Your task to perform on an android device: Open the map Image 0: 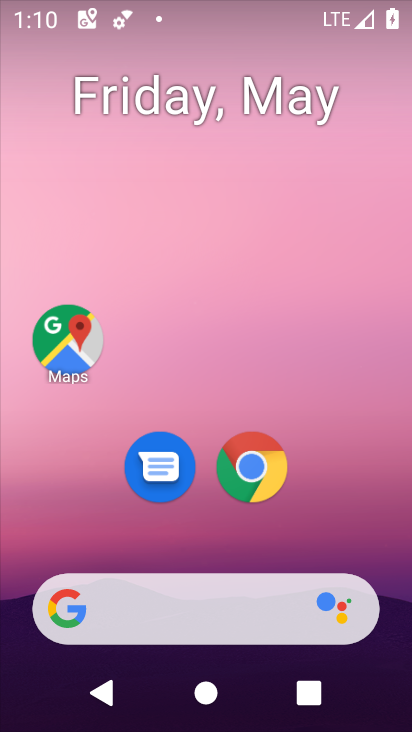
Step 0: drag from (324, 494) to (360, 64)
Your task to perform on an android device: Open the map Image 1: 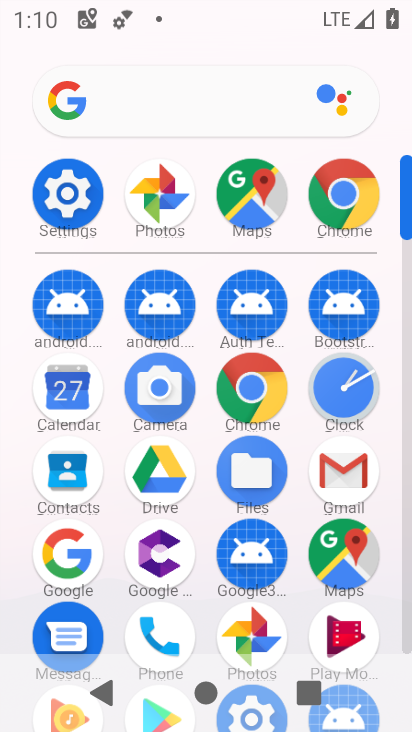
Step 1: click (242, 194)
Your task to perform on an android device: Open the map Image 2: 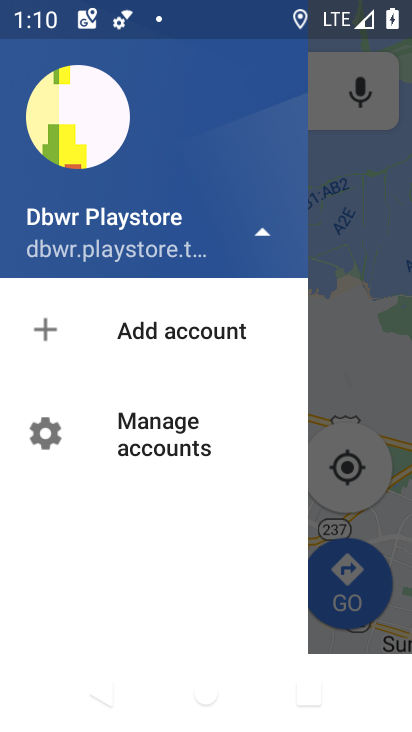
Step 2: click (102, 687)
Your task to perform on an android device: Open the map Image 3: 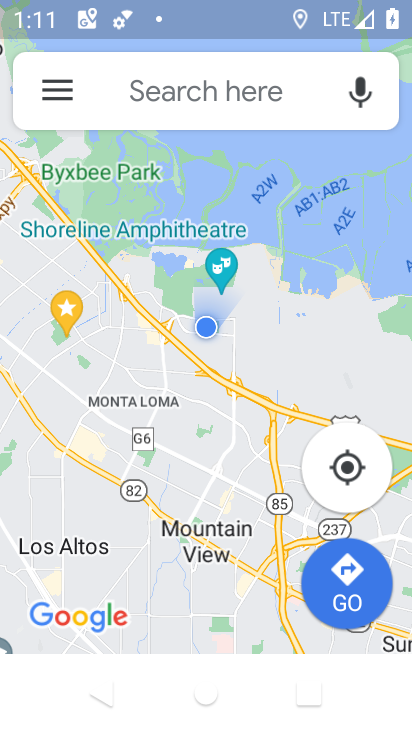
Step 3: task complete